Your task to perform on an android device: Go to calendar. Show me events next week Image 0: 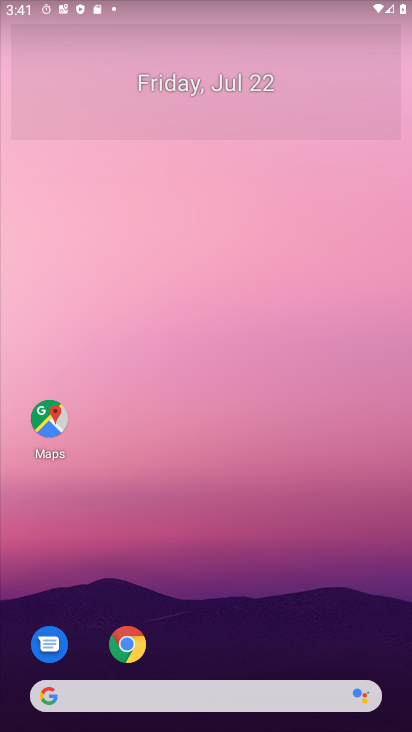
Step 0: drag from (228, 636) to (173, 35)
Your task to perform on an android device: Go to calendar. Show me events next week Image 1: 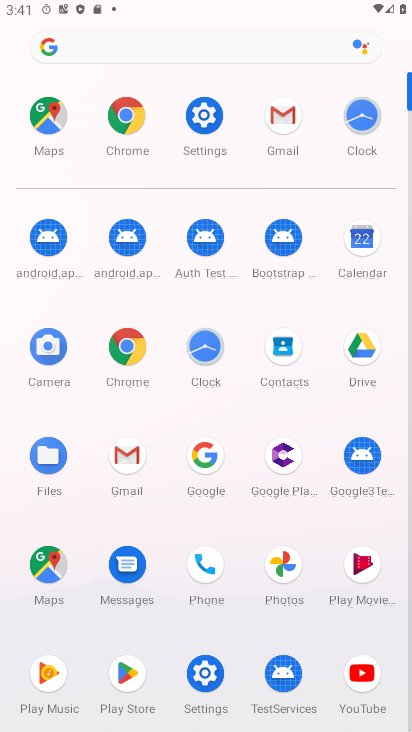
Step 1: click (364, 247)
Your task to perform on an android device: Go to calendar. Show me events next week Image 2: 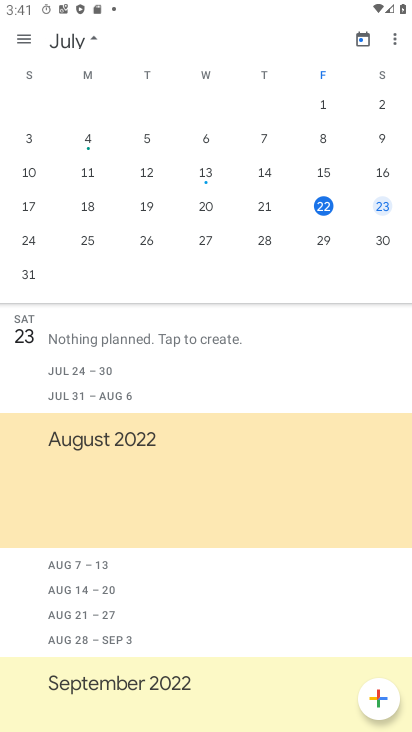
Step 2: click (22, 38)
Your task to perform on an android device: Go to calendar. Show me events next week Image 3: 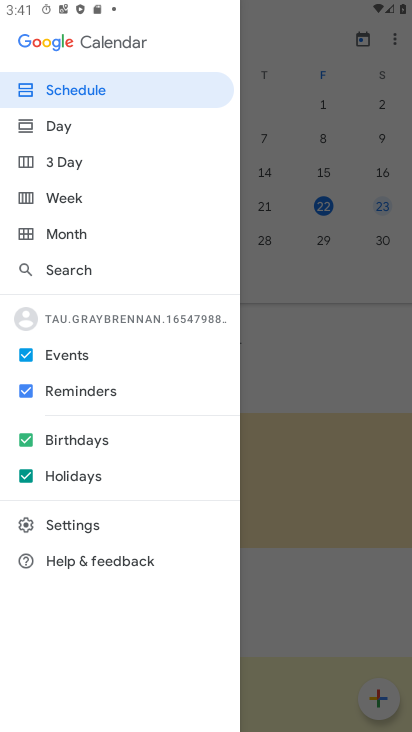
Step 3: click (56, 199)
Your task to perform on an android device: Go to calendar. Show me events next week Image 4: 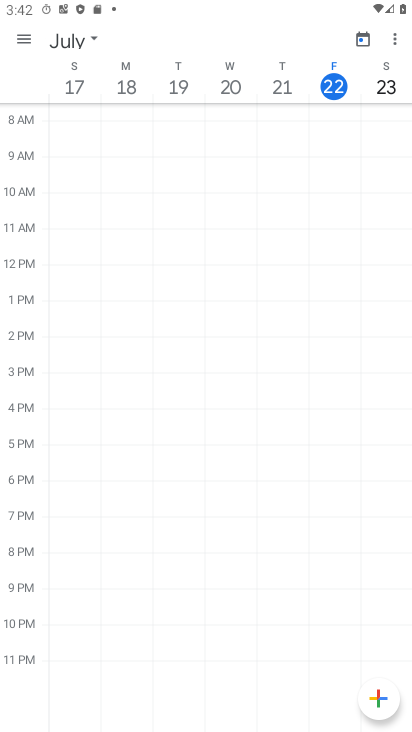
Step 4: task complete